Your task to perform on an android device: choose inbox layout in the gmail app Image 0: 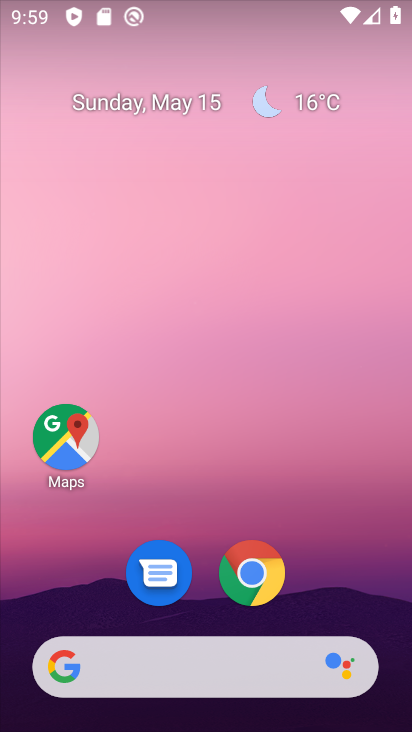
Step 0: press home button
Your task to perform on an android device: choose inbox layout in the gmail app Image 1: 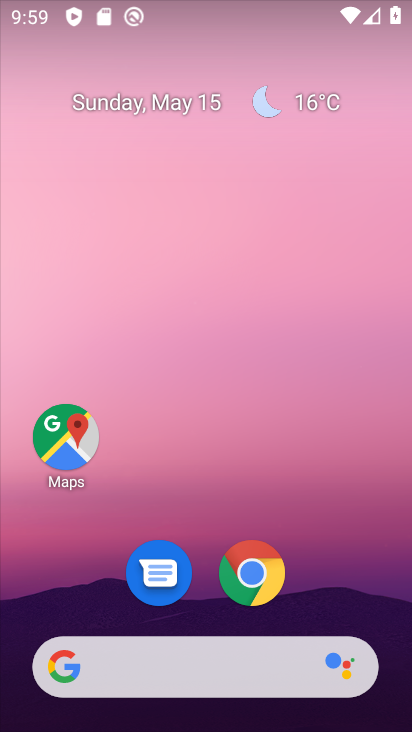
Step 1: drag from (241, 281) to (235, 204)
Your task to perform on an android device: choose inbox layout in the gmail app Image 2: 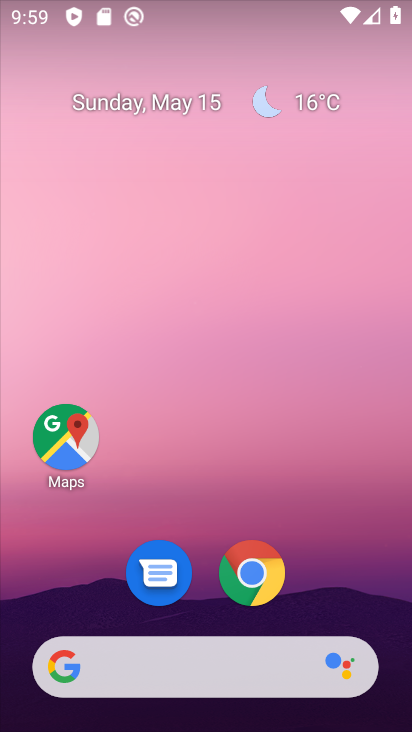
Step 2: drag from (295, 621) to (287, 89)
Your task to perform on an android device: choose inbox layout in the gmail app Image 3: 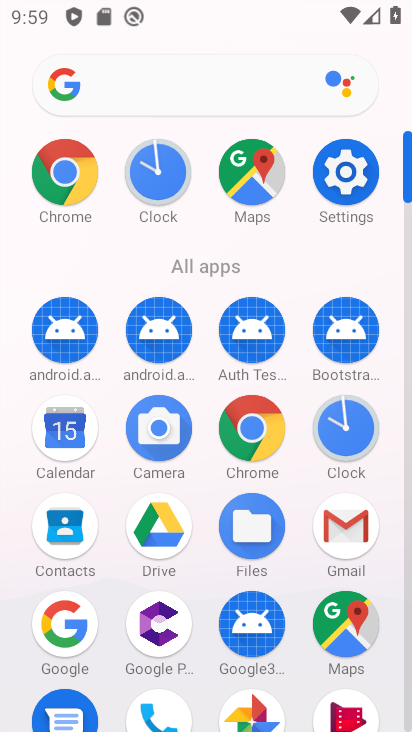
Step 3: click (347, 543)
Your task to perform on an android device: choose inbox layout in the gmail app Image 4: 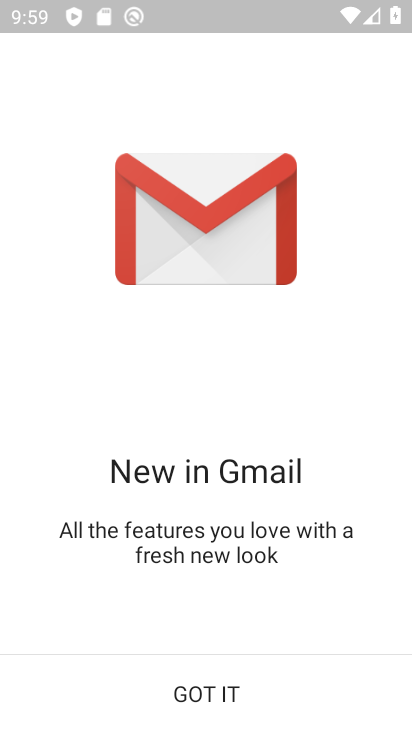
Step 4: click (209, 697)
Your task to perform on an android device: choose inbox layout in the gmail app Image 5: 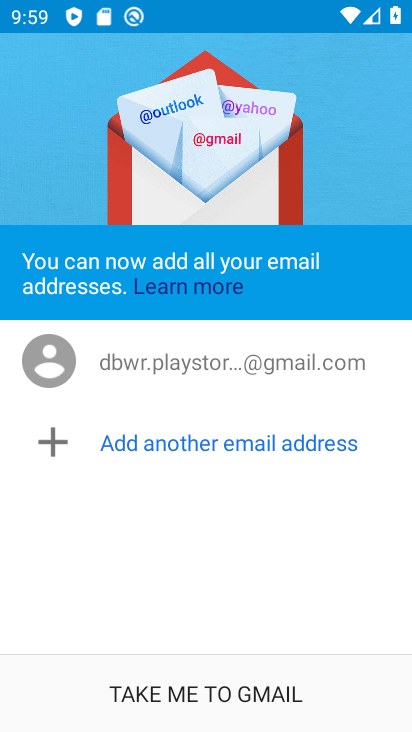
Step 5: click (209, 697)
Your task to perform on an android device: choose inbox layout in the gmail app Image 6: 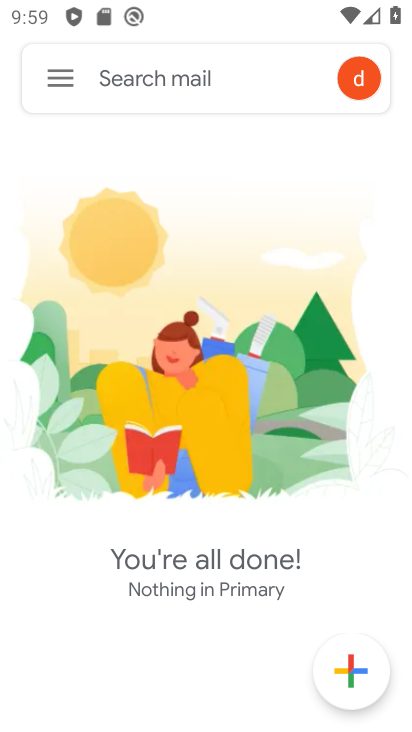
Step 6: click (54, 82)
Your task to perform on an android device: choose inbox layout in the gmail app Image 7: 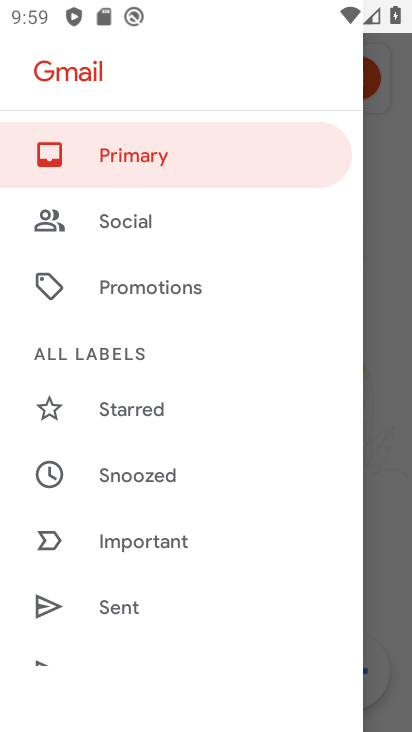
Step 7: drag from (123, 622) to (168, 219)
Your task to perform on an android device: choose inbox layout in the gmail app Image 8: 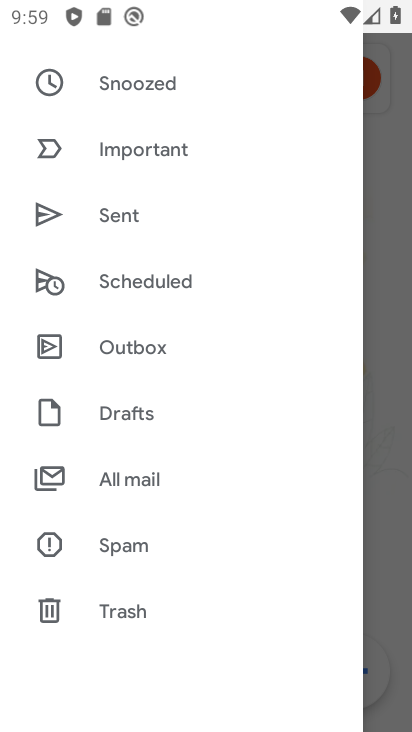
Step 8: drag from (173, 318) to (179, 242)
Your task to perform on an android device: choose inbox layout in the gmail app Image 9: 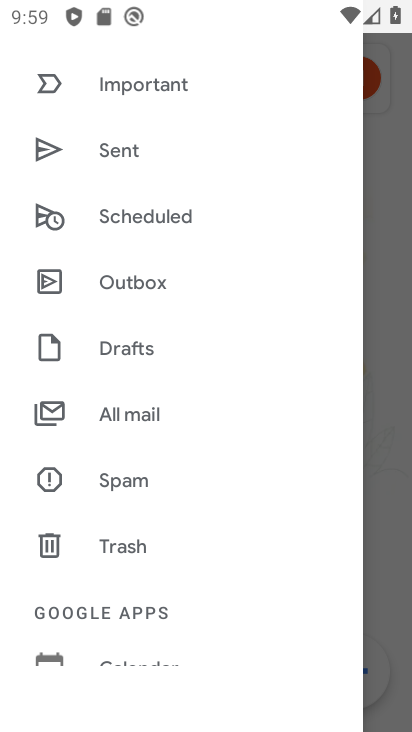
Step 9: drag from (189, 274) to (195, 208)
Your task to perform on an android device: choose inbox layout in the gmail app Image 10: 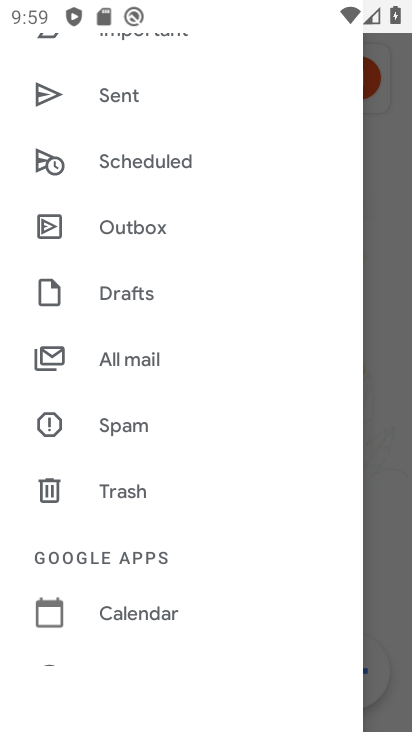
Step 10: drag from (142, 608) to (184, 149)
Your task to perform on an android device: choose inbox layout in the gmail app Image 11: 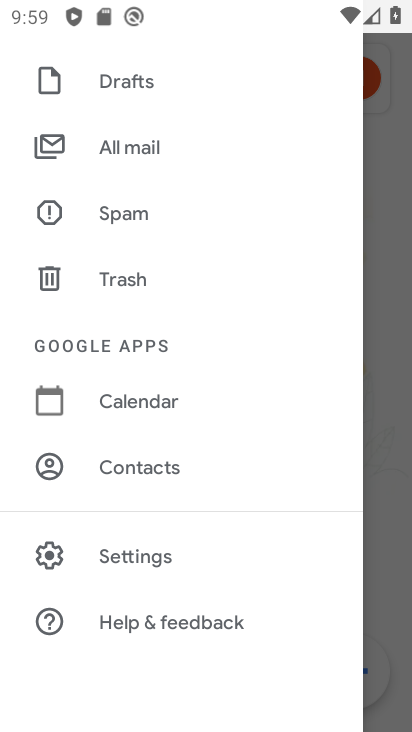
Step 11: click (110, 566)
Your task to perform on an android device: choose inbox layout in the gmail app Image 12: 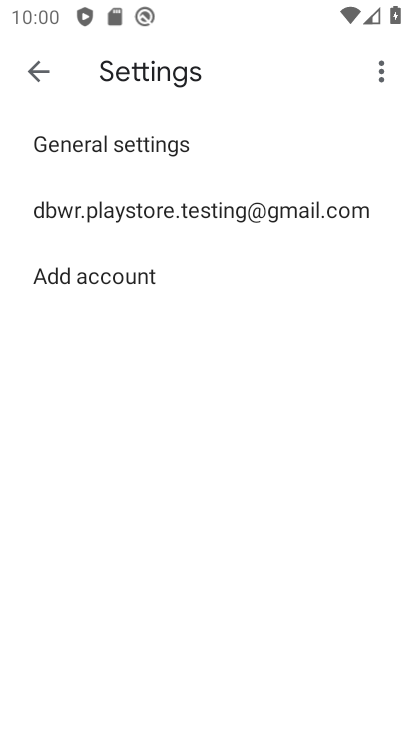
Step 12: click (252, 217)
Your task to perform on an android device: choose inbox layout in the gmail app Image 13: 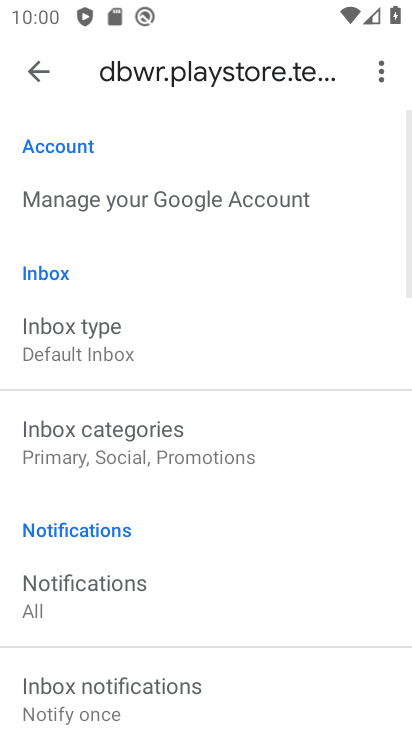
Step 13: click (21, 368)
Your task to perform on an android device: choose inbox layout in the gmail app Image 14: 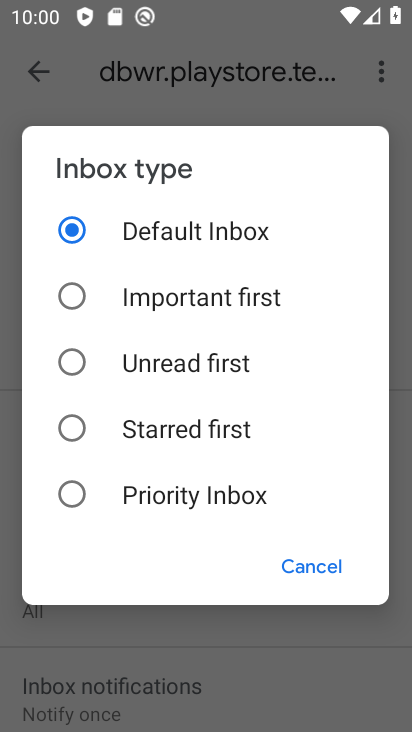
Step 14: click (70, 484)
Your task to perform on an android device: choose inbox layout in the gmail app Image 15: 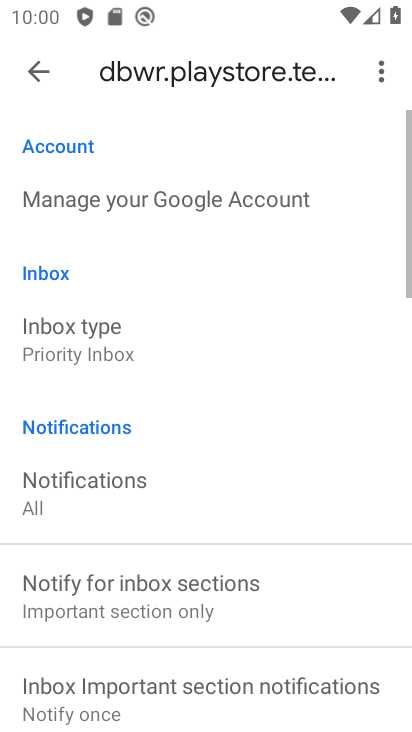
Step 15: task complete